Your task to perform on an android device: add a contact Image 0: 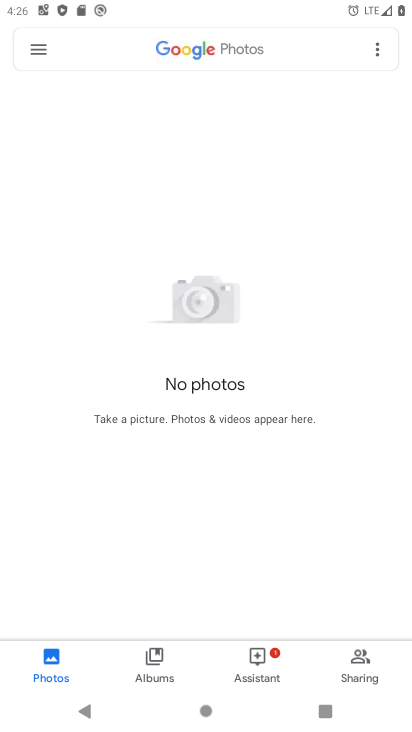
Step 0: press home button
Your task to perform on an android device: add a contact Image 1: 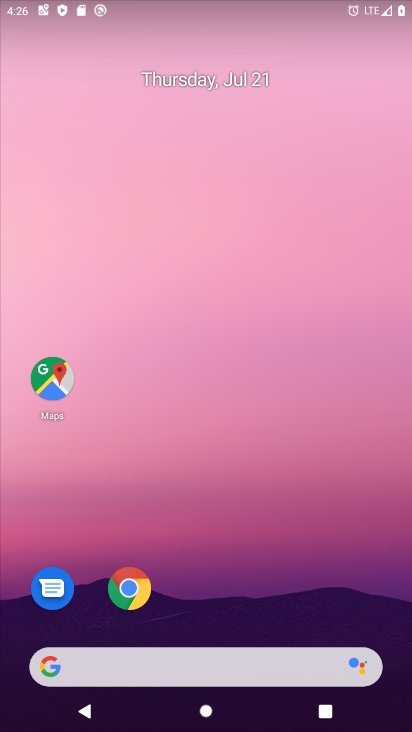
Step 1: drag from (210, 612) to (287, 47)
Your task to perform on an android device: add a contact Image 2: 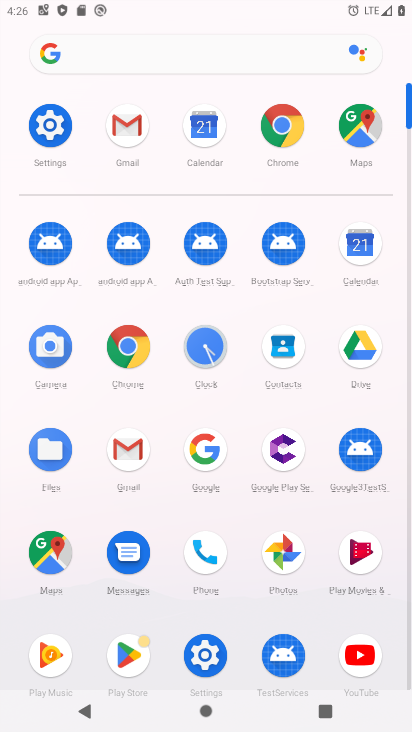
Step 2: drag from (148, 249) to (191, 8)
Your task to perform on an android device: add a contact Image 3: 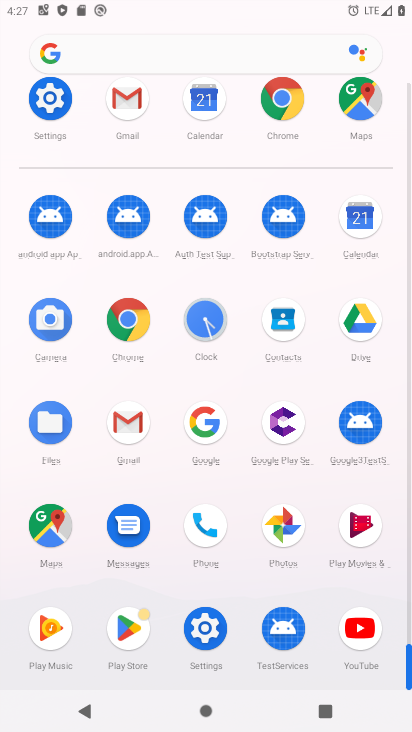
Step 3: click (279, 312)
Your task to perform on an android device: add a contact Image 4: 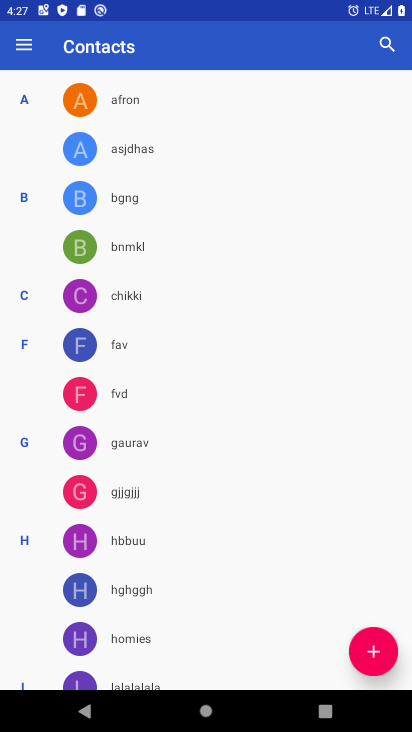
Step 4: click (383, 662)
Your task to perform on an android device: add a contact Image 5: 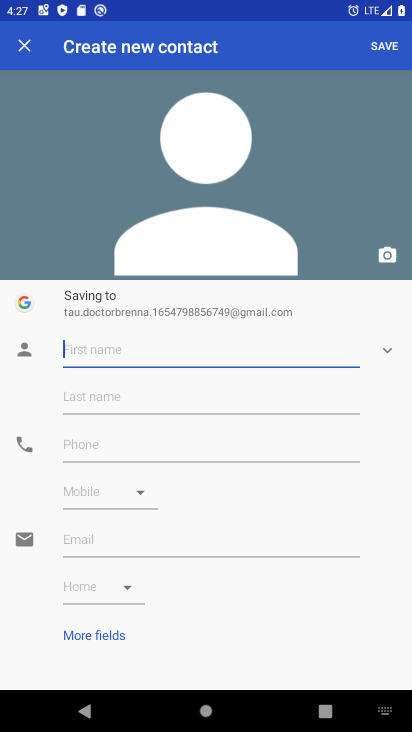
Step 5: type "jjhhi"
Your task to perform on an android device: add a contact Image 6: 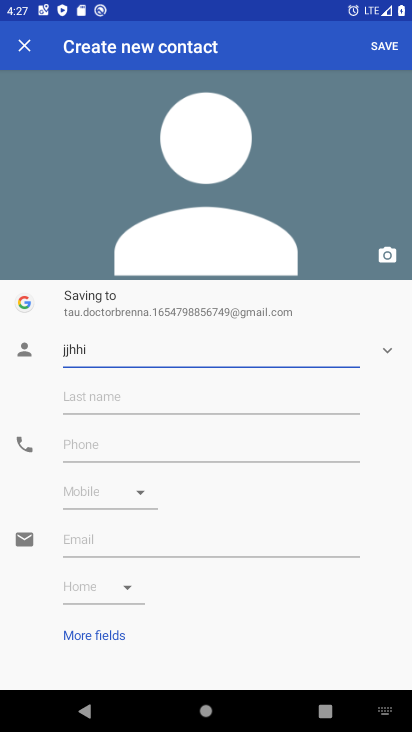
Step 6: click (187, 445)
Your task to perform on an android device: add a contact Image 7: 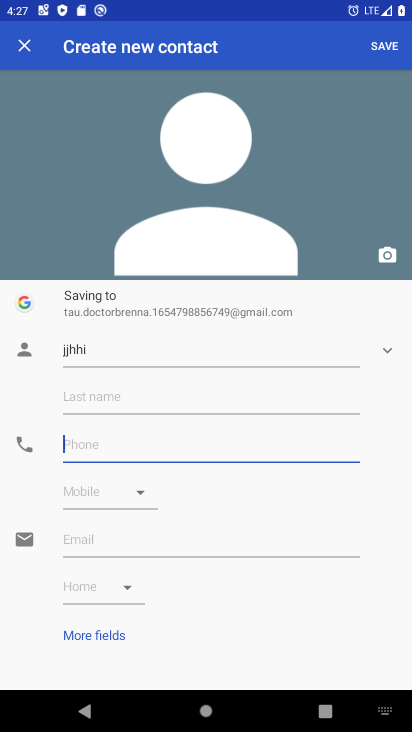
Step 7: type "09123"
Your task to perform on an android device: add a contact Image 8: 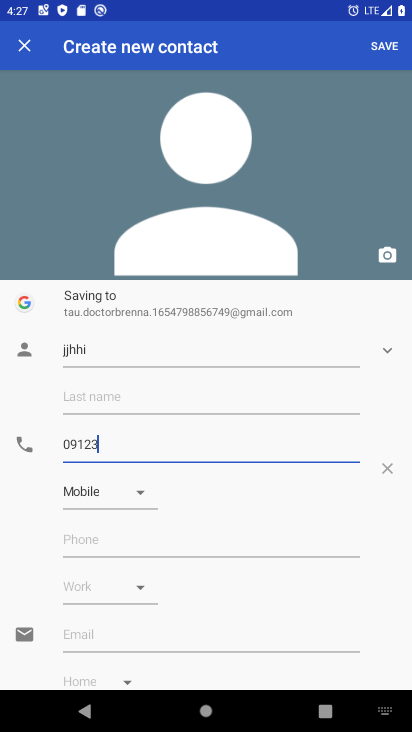
Step 8: click (395, 44)
Your task to perform on an android device: add a contact Image 9: 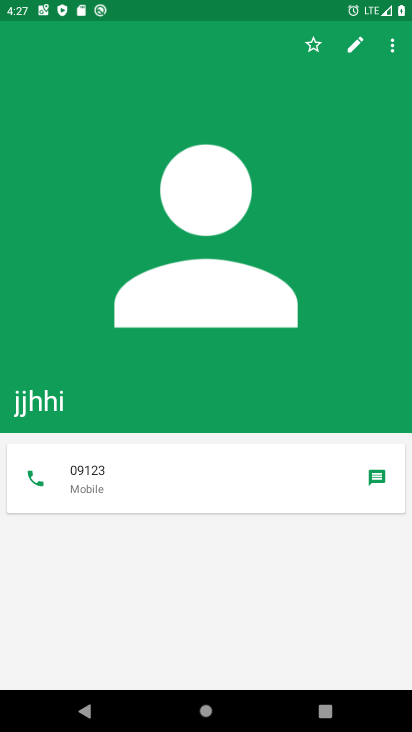
Step 9: task complete